Your task to perform on an android device: Go to Android settings Image 0: 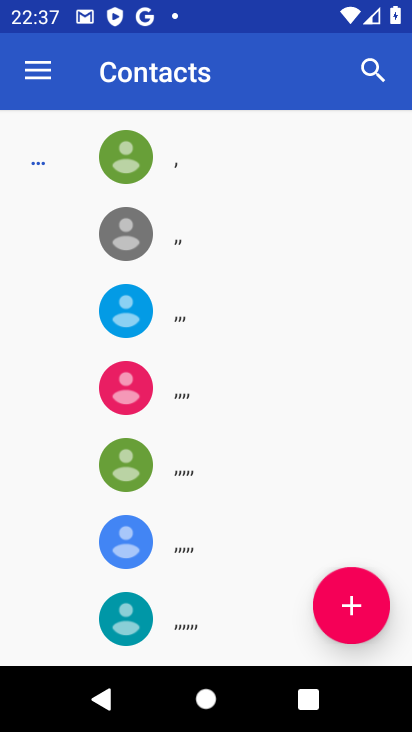
Step 0: press home button
Your task to perform on an android device: Go to Android settings Image 1: 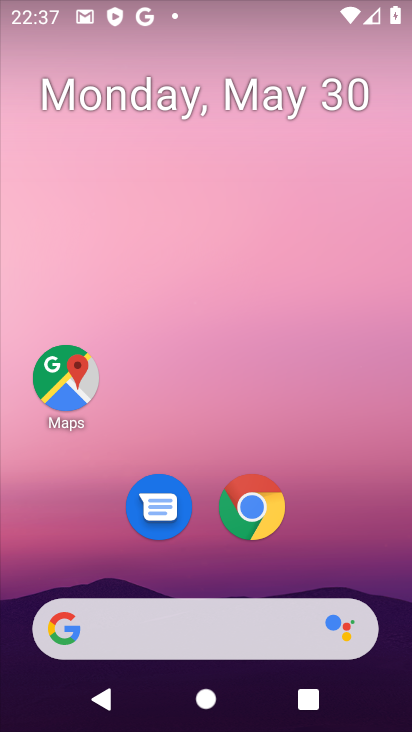
Step 1: drag from (365, 546) to (342, 123)
Your task to perform on an android device: Go to Android settings Image 2: 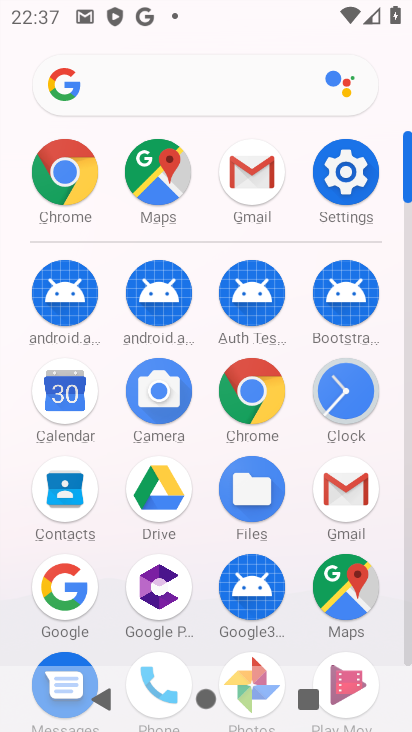
Step 2: click (356, 167)
Your task to perform on an android device: Go to Android settings Image 3: 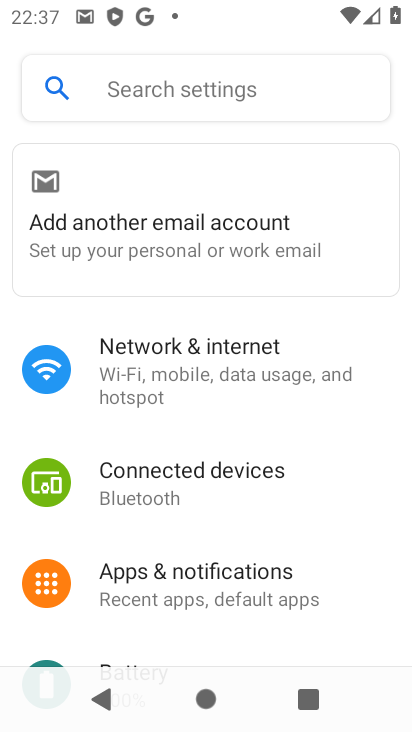
Step 3: drag from (358, 559) to (359, 365)
Your task to perform on an android device: Go to Android settings Image 4: 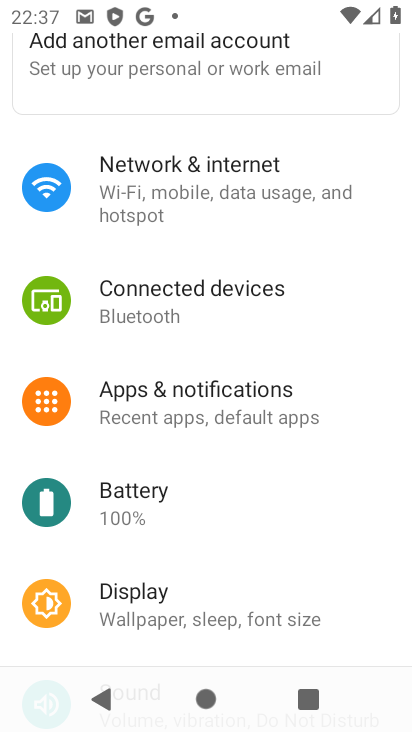
Step 4: drag from (351, 569) to (364, 356)
Your task to perform on an android device: Go to Android settings Image 5: 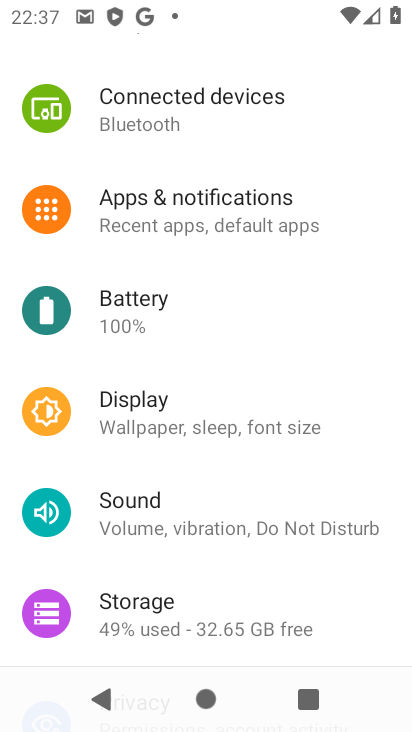
Step 5: drag from (326, 588) to (332, 381)
Your task to perform on an android device: Go to Android settings Image 6: 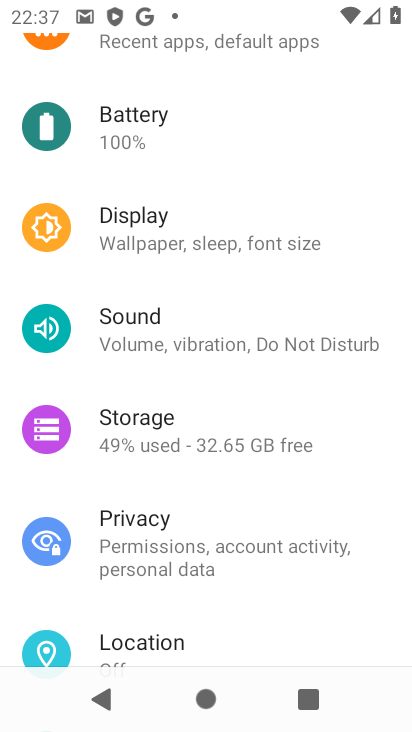
Step 6: drag from (343, 597) to (344, 463)
Your task to perform on an android device: Go to Android settings Image 7: 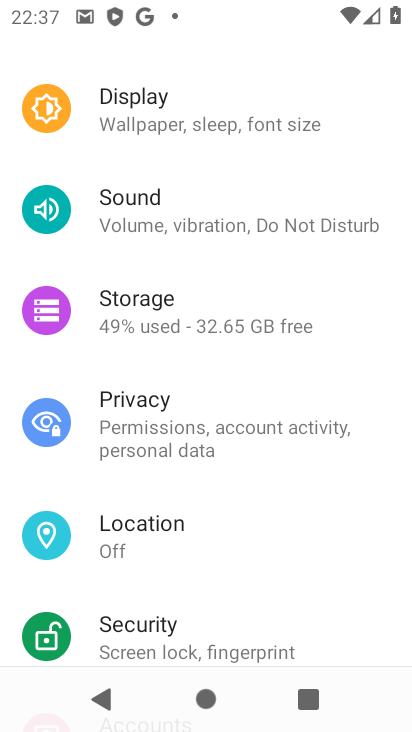
Step 7: drag from (342, 596) to (349, 449)
Your task to perform on an android device: Go to Android settings Image 8: 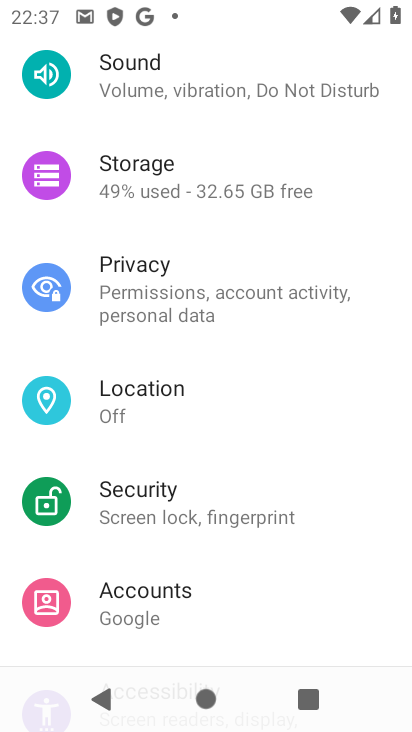
Step 8: drag from (343, 583) to (341, 436)
Your task to perform on an android device: Go to Android settings Image 9: 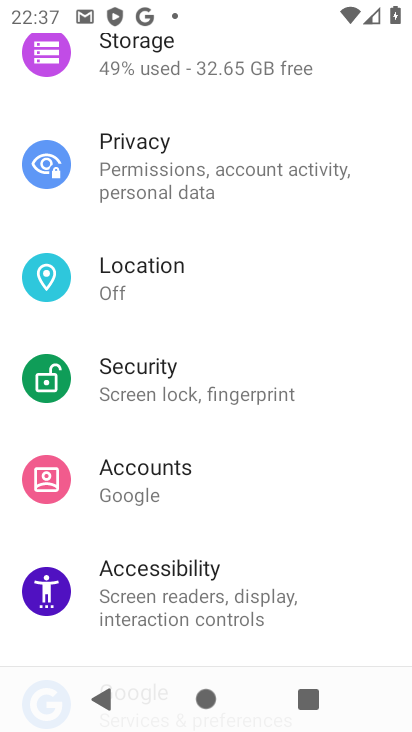
Step 9: drag from (338, 596) to (333, 392)
Your task to perform on an android device: Go to Android settings Image 10: 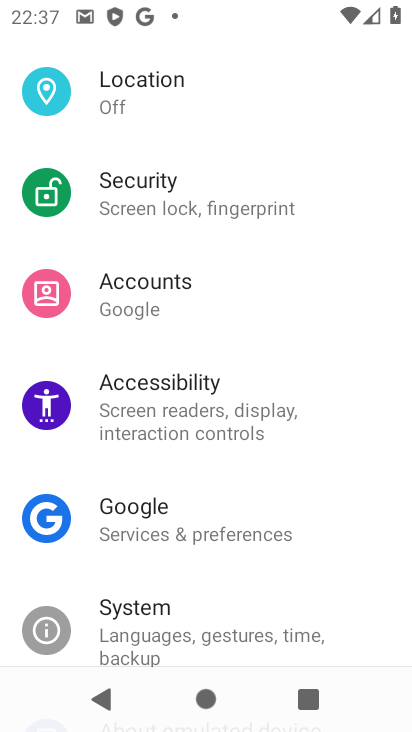
Step 10: drag from (320, 555) to (325, 343)
Your task to perform on an android device: Go to Android settings Image 11: 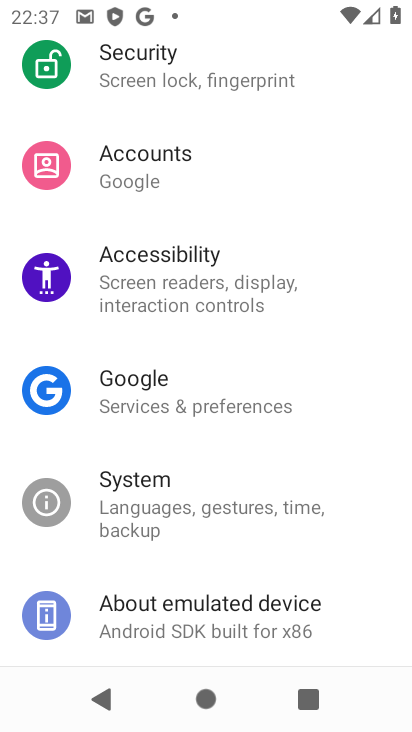
Step 11: click (310, 522)
Your task to perform on an android device: Go to Android settings Image 12: 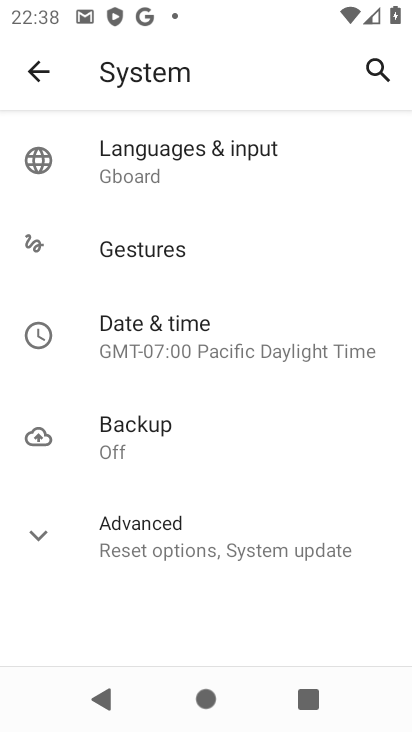
Step 12: click (283, 534)
Your task to perform on an android device: Go to Android settings Image 13: 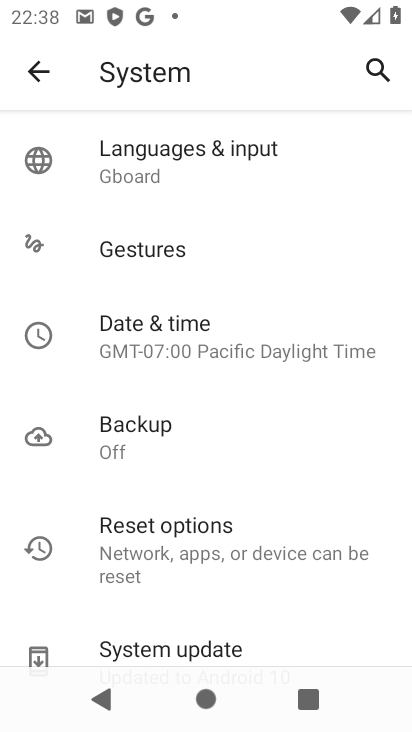
Step 13: task complete